Your task to perform on an android device: Go to wifi settings Image 0: 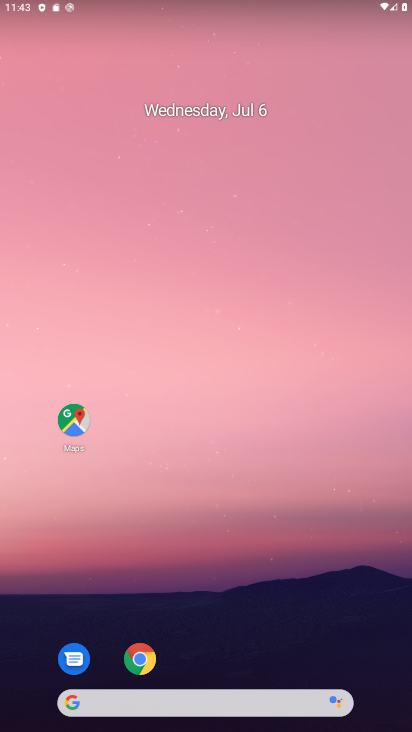
Step 0: drag from (279, 725) to (189, 115)
Your task to perform on an android device: Go to wifi settings Image 1: 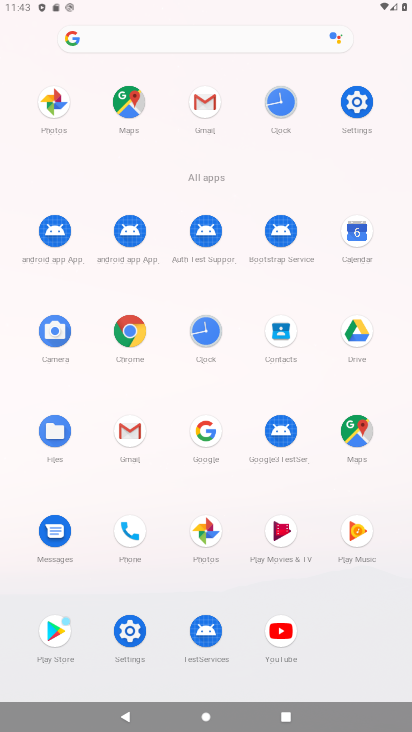
Step 1: drag from (309, 634) to (238, 166)
Your task to perform on an android device: Go to wifi settings Image 2: 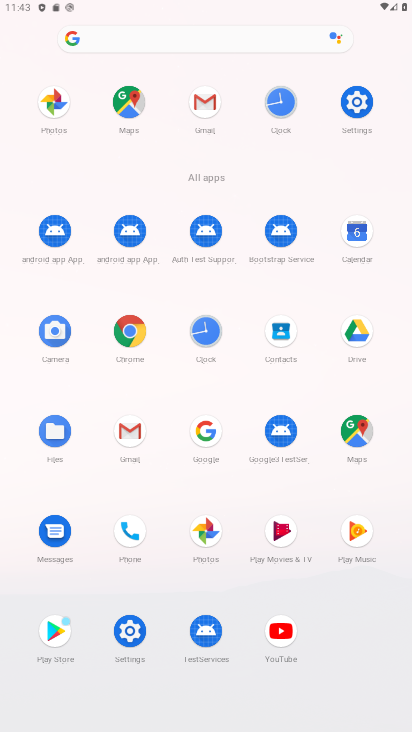
Step 2: click (350, 99)
Your task to perform on an android device: Go to wifi settings Image 3: 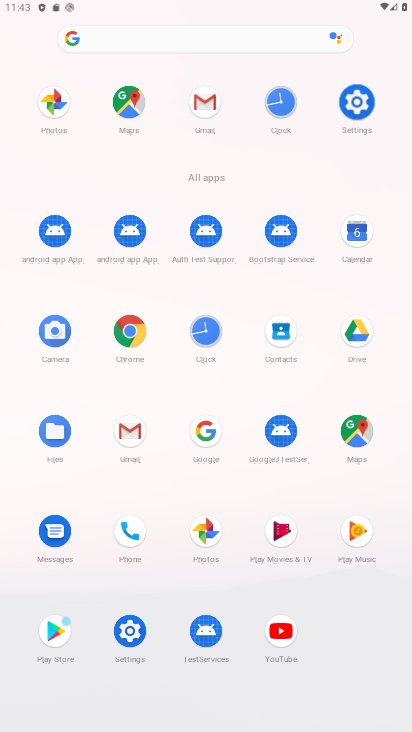
Step 3: click (351, 99)
Your task to perform on an android device: Go to wifi settings Image 4: 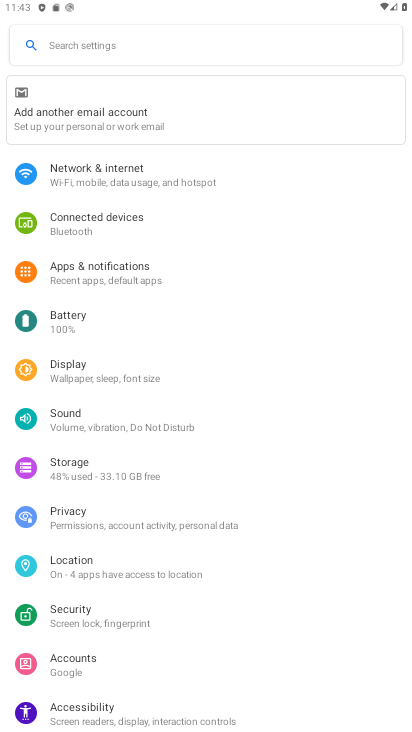
Step 4: click (89, 178)
Your task to perform on an android device: Go to wifi settings Image 5: 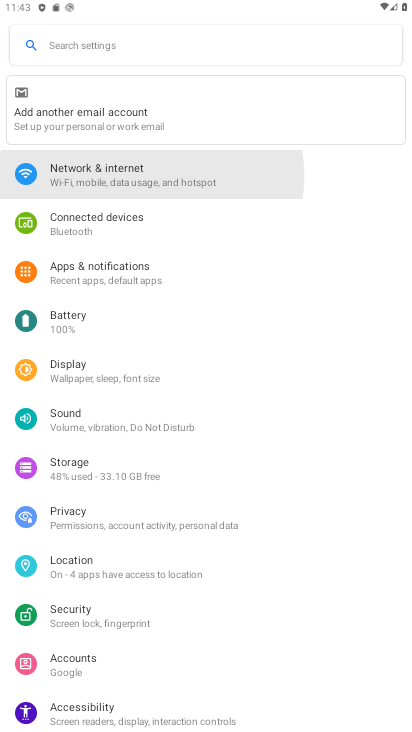
Step 5: click (90, 180)
Your task to perform on an android device: Go to wifi settings Image 6: 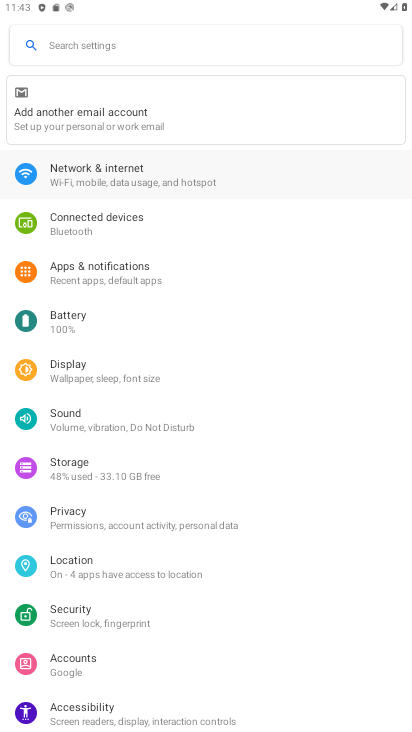
Step 6: click (92, 181)
Your task to perform on an android device: Go to wifi settings Image 7: 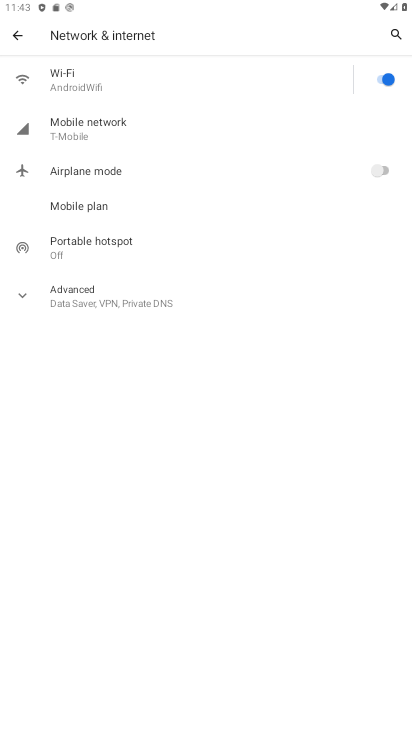
Step 7: click (87, 94)
Your task to perform on an android device: Go to wifi settings Image 8: 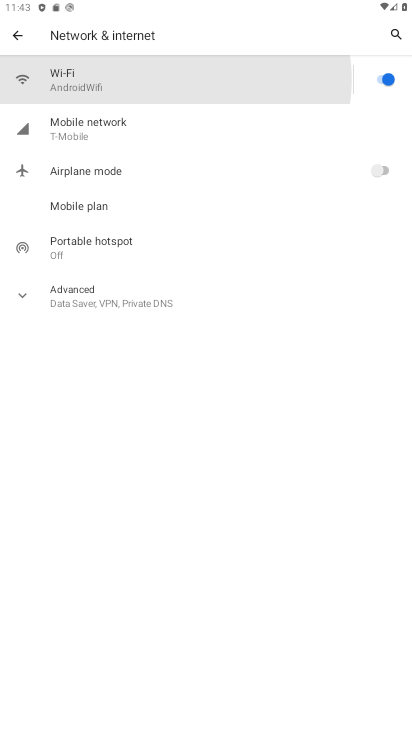
Step 8: click (88, 94)
Your task to perform on an android device: Go to wifi settings Image 9: 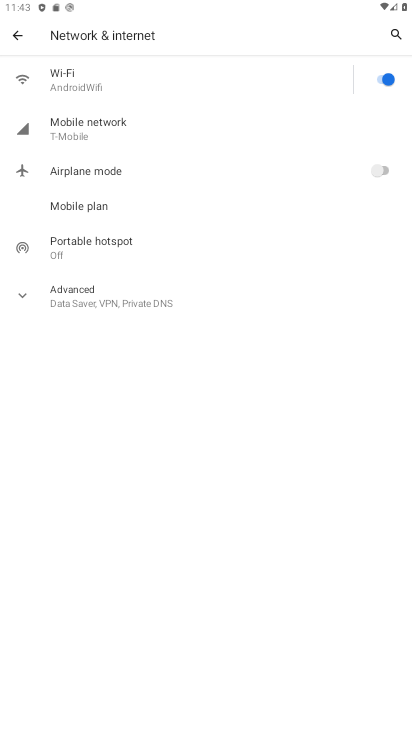
Step 9: click (89, 95)
Your task to perform on an android device: Go to wifi settings Image 10: 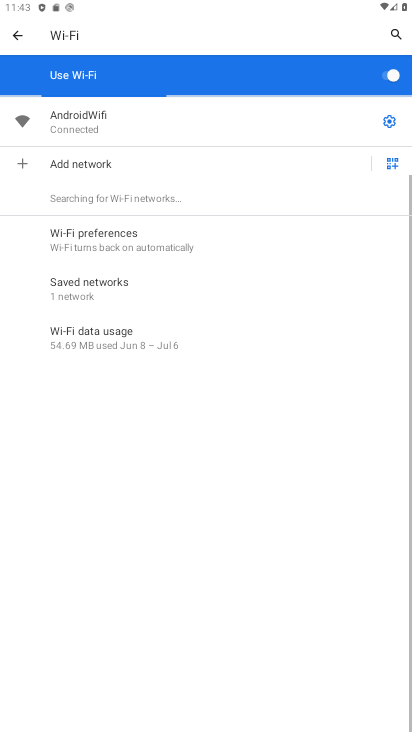
Step 10: task complete